Your task to perform on an android device: turn on translation in the chrome app Image 0: 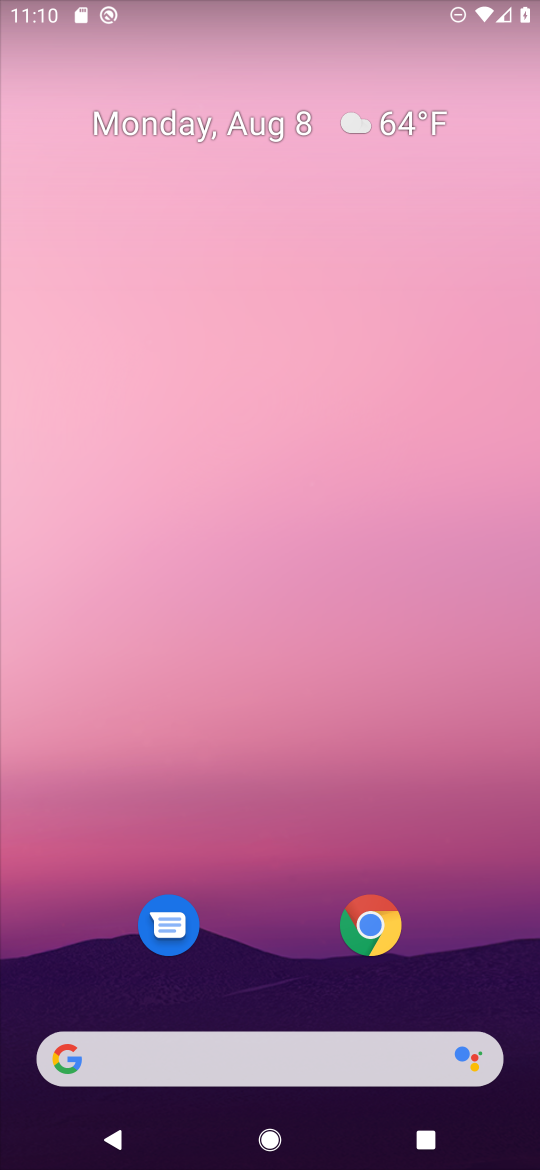
Step 0: drag from (449, 926) to (338, 222)
Your task to perform on an android device: turn on translation in the chrome app Image 1: 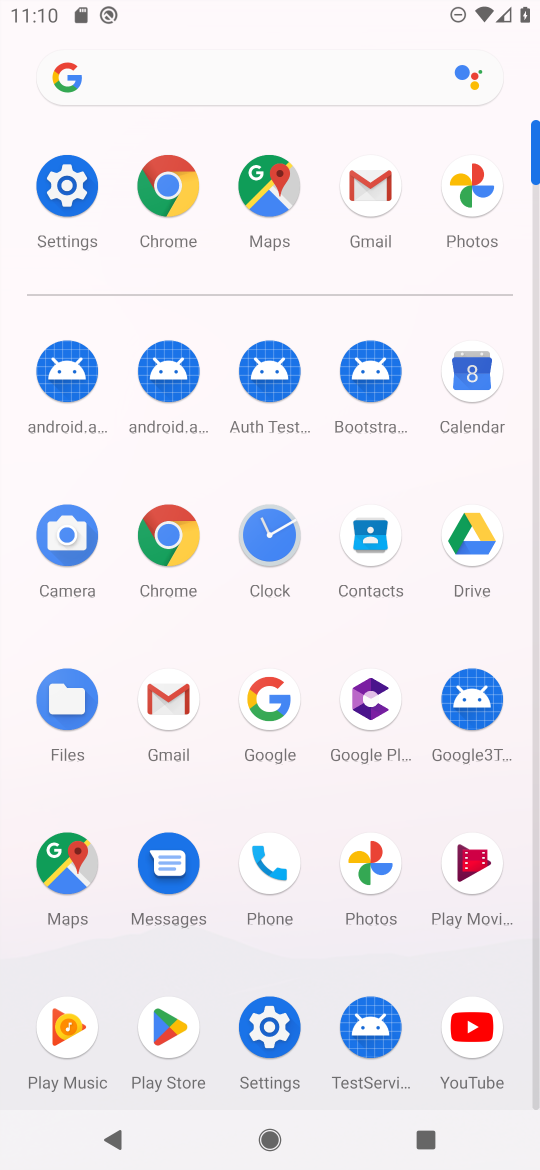
Step 1: click (162, 549)
Your task to perform on an android device: turn on translation in the chrome app Image 2: 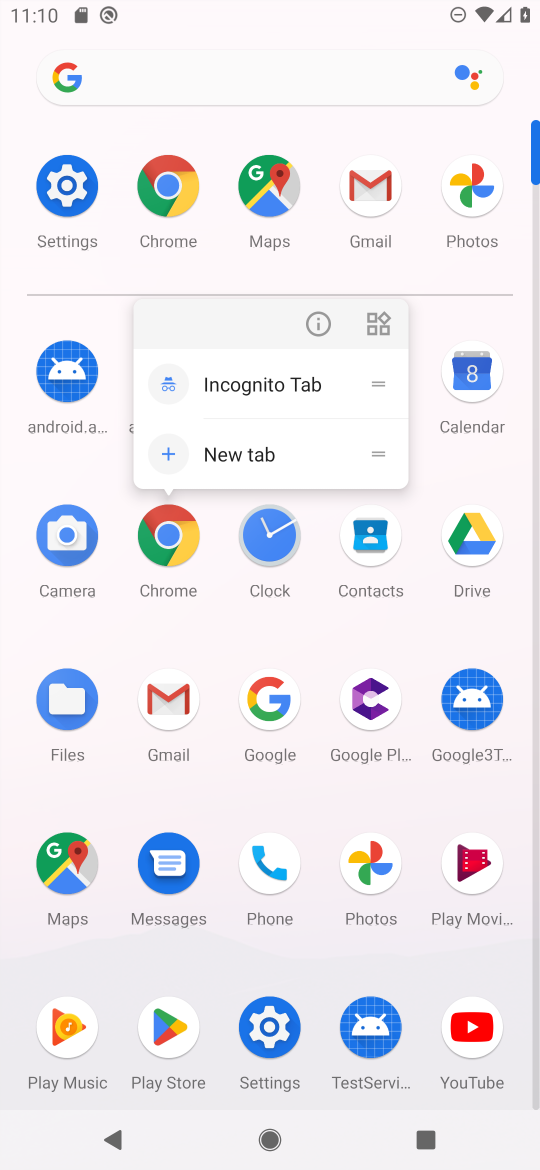
Step 2: click (159, 538)
Your task to perform on an android device: turn on translation in the chrome app Image 3: 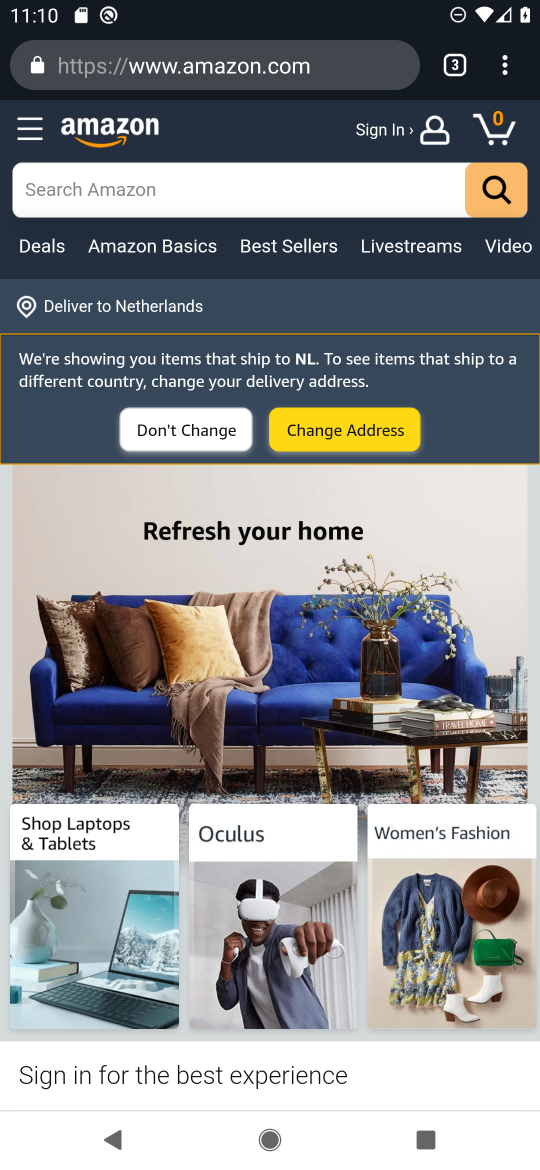
Step 3: drag from (499, 64) to (280, 858)
Your task to perform on an android device: turn on translation in the chrome app Image 4: 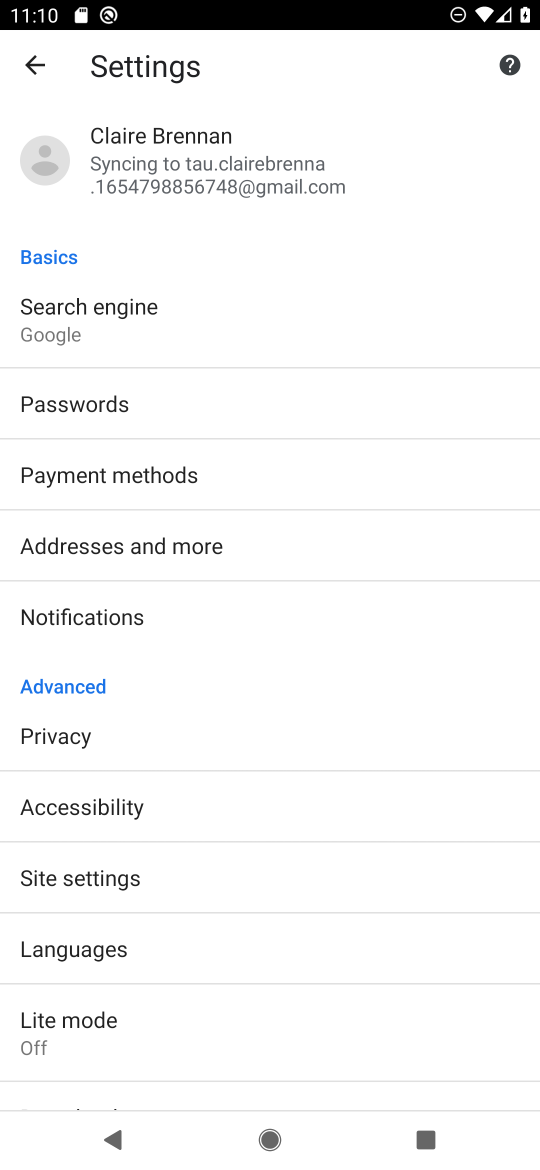
Step 4: click (67, 950)
Your task to perform on an android device: turn on translation in the chrome app Image 5: 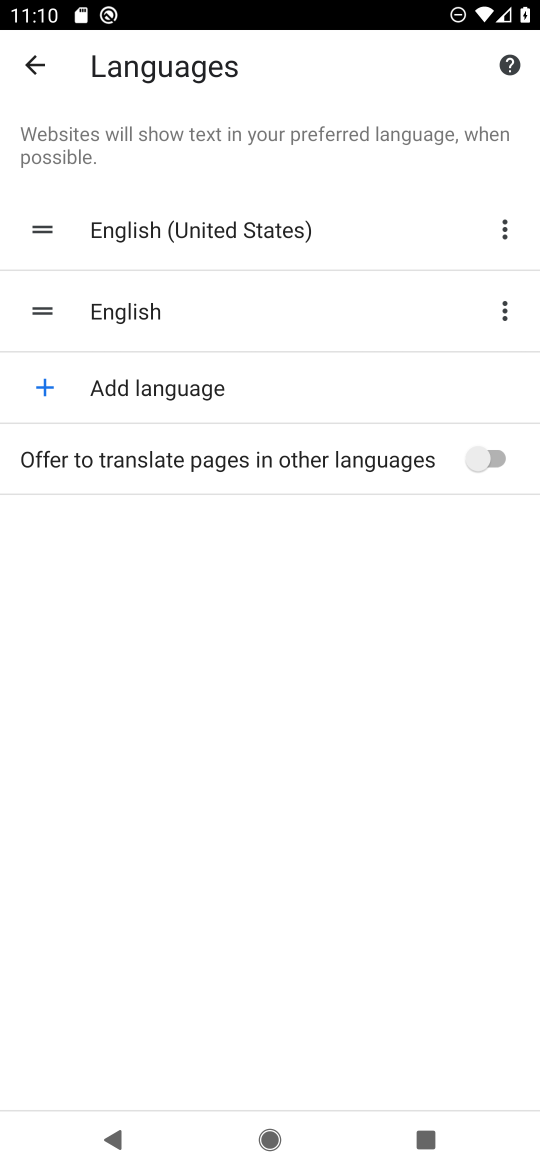
Step 5: click (499, 457)
Your task to perform on an android device: turn on translation in the chrome app Image 6: 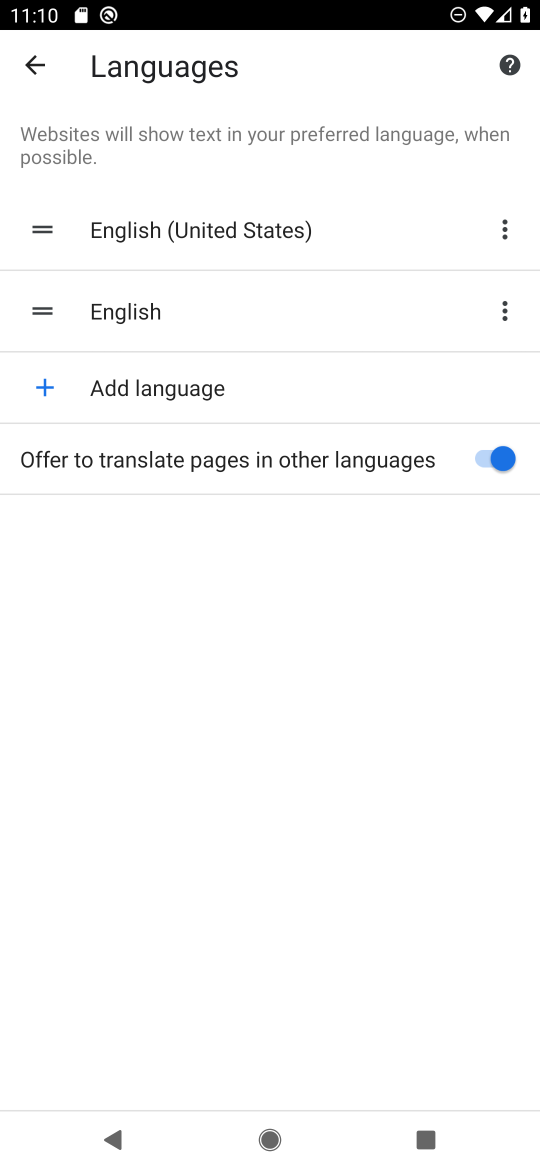
Step 6: task complete